Your task to perform on an android device: Search for seafood restaurants on Google Maps Image 0: 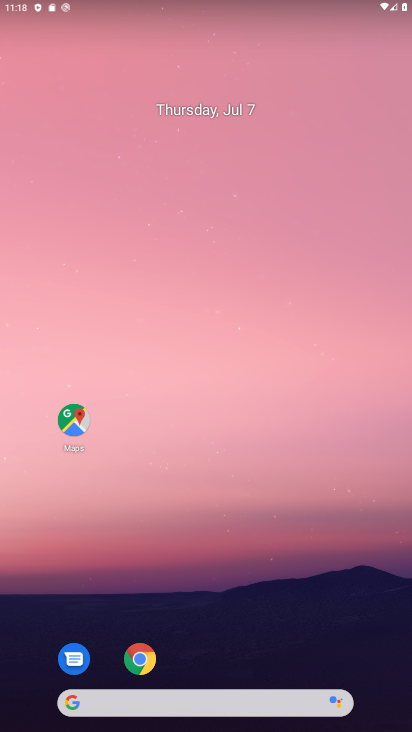
Step 0: click (71, 399)
Your task to perform on an android device: Search for seafood restaurants on Google Maps Image 1: 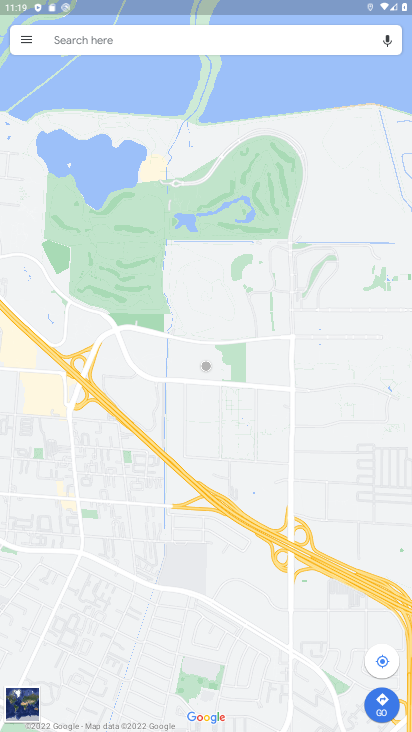
Step 1: click (160, 31)
Your task to perform on an android device: Search for seafood restaurants on Google Maps Image 2: 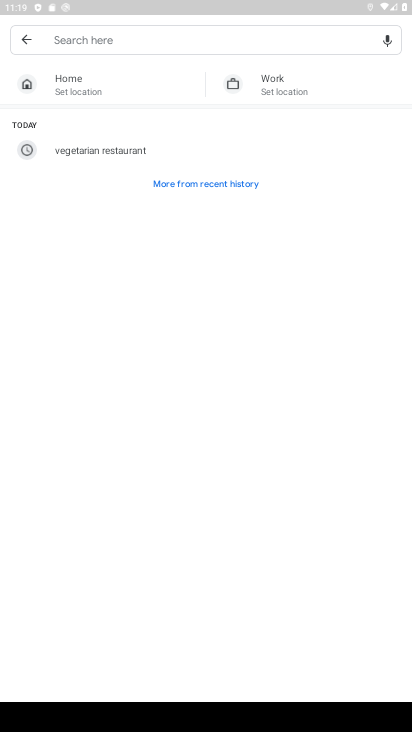
Step 2: type "seafood restaurant"
Your task to perform on an android device: Search for seafood restaurants on Google Maps Image 3: 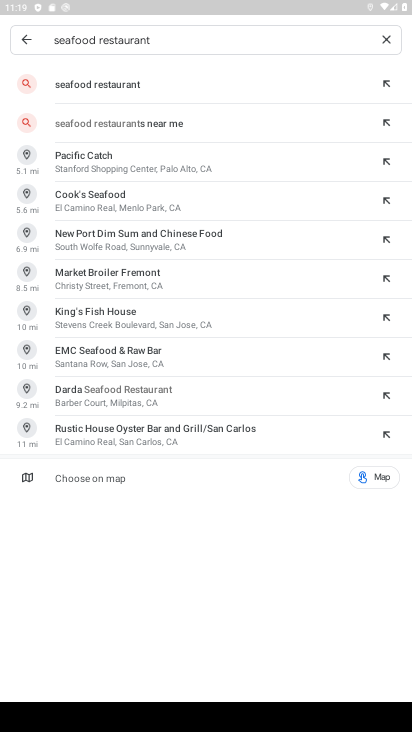
Step 3: click (227, 79)
Your task to perform on an android device: Search for seafood restaurants on Google Maps Image 4: 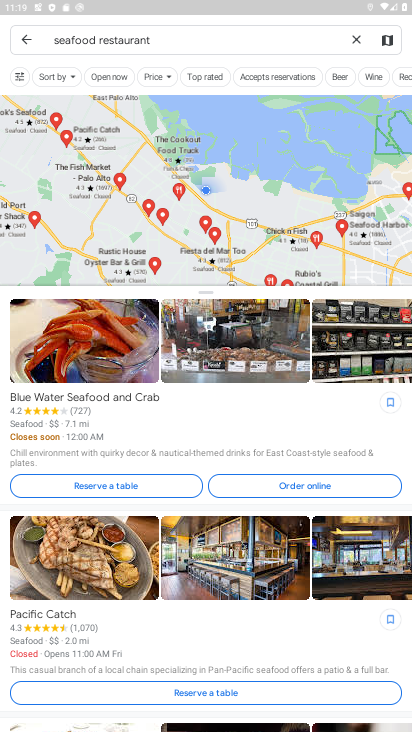
Step 4: task complete